Your task to perform on an android device: Open display settings Image 0: 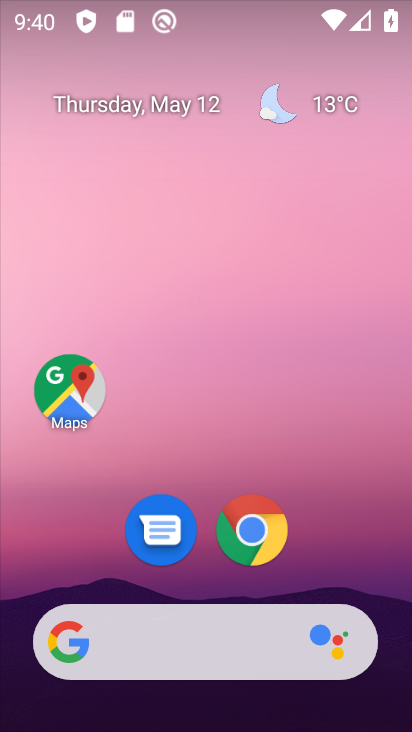
Step 0: press home button
Your task to perform on an android device: Open display settings Image 1: 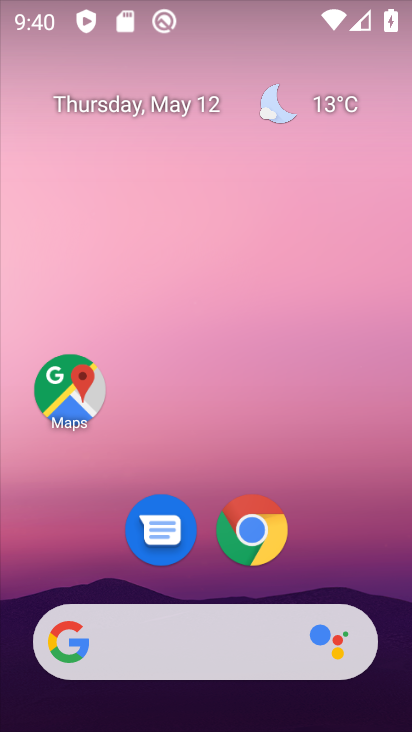
Step 1: drag from (311, 546) to (328, 207)
Your task to perform on an android device: Open display settings Image 2: 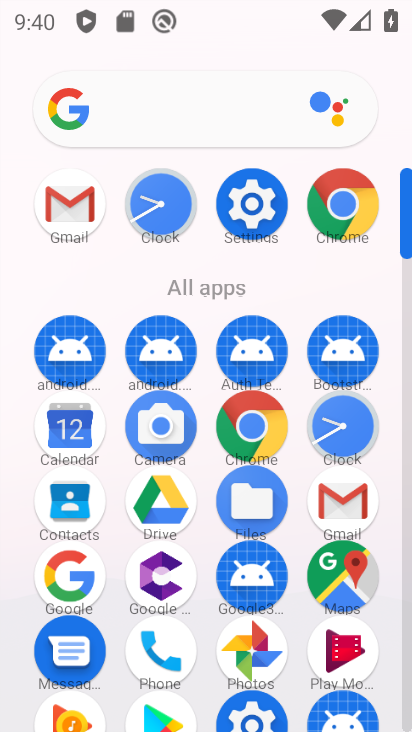
Step 2: click (256, 181)
Your task to perform on an android device: Open display settings Image 3: 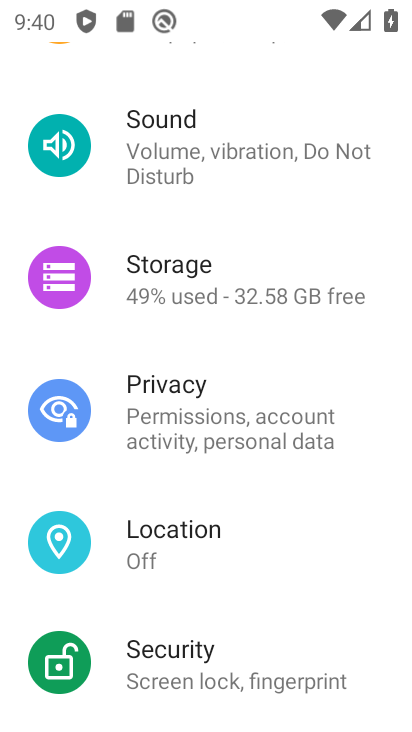
Step 3: drag from (302, 230) to (304, 661)
Your task to perform on an android device: Open display settings Image 4: 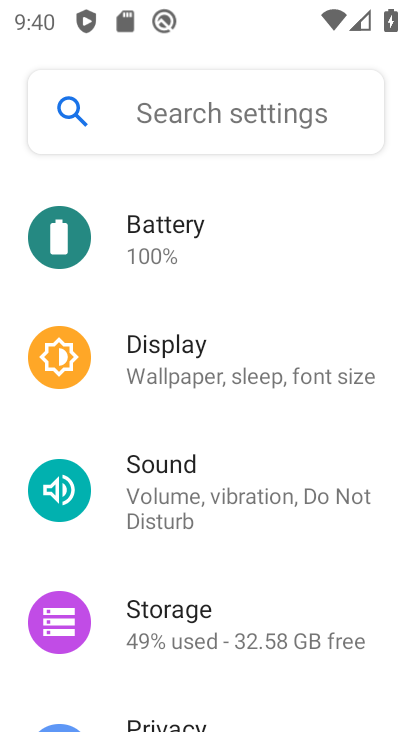
Step 4: click (285, 383)
Your task to perform on an android device: Open display settings Image 5: 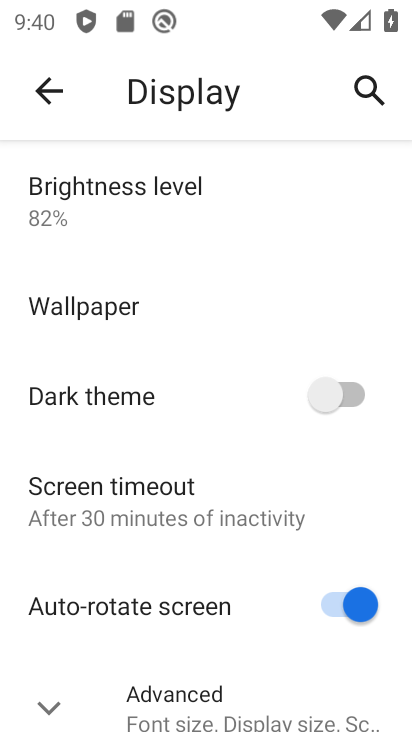
Step 5: task complete